Your task to perform on an android device: Open display settings Image 0: 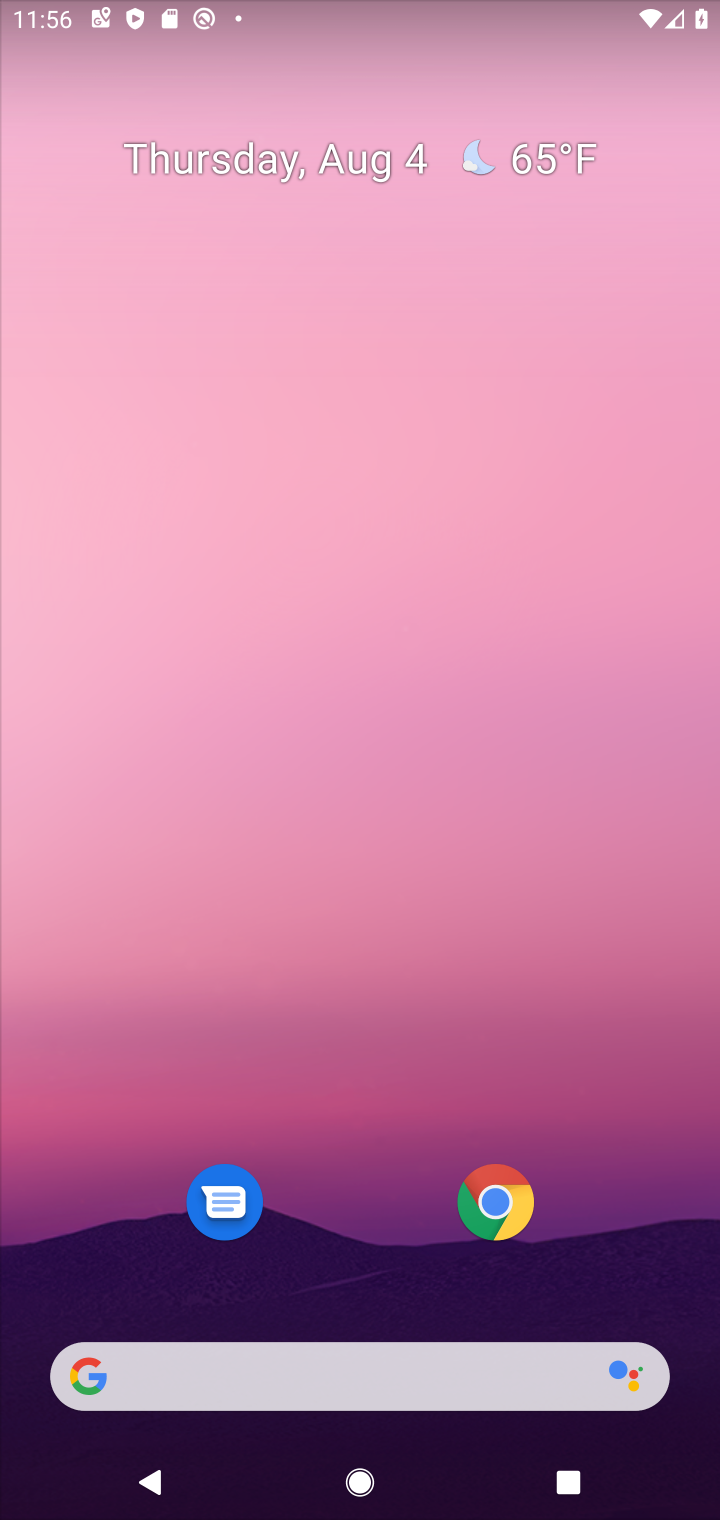
Step 0: drag from (297, 1279) to (459, 62)
Your task to perform on an android device: Open display settings Image 1: 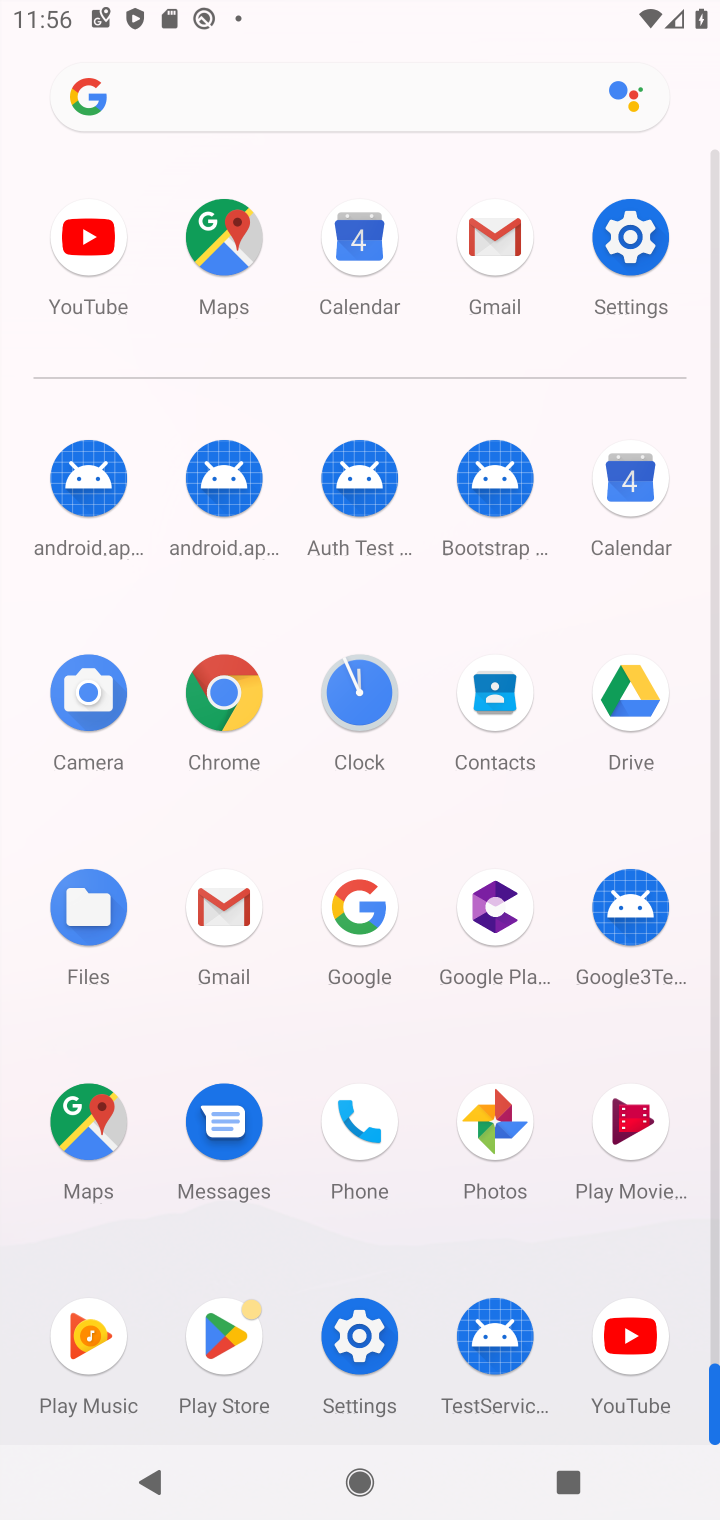
Step 1: click (642, 235)
Your task to perform on an android device: Open display settings Image 2: 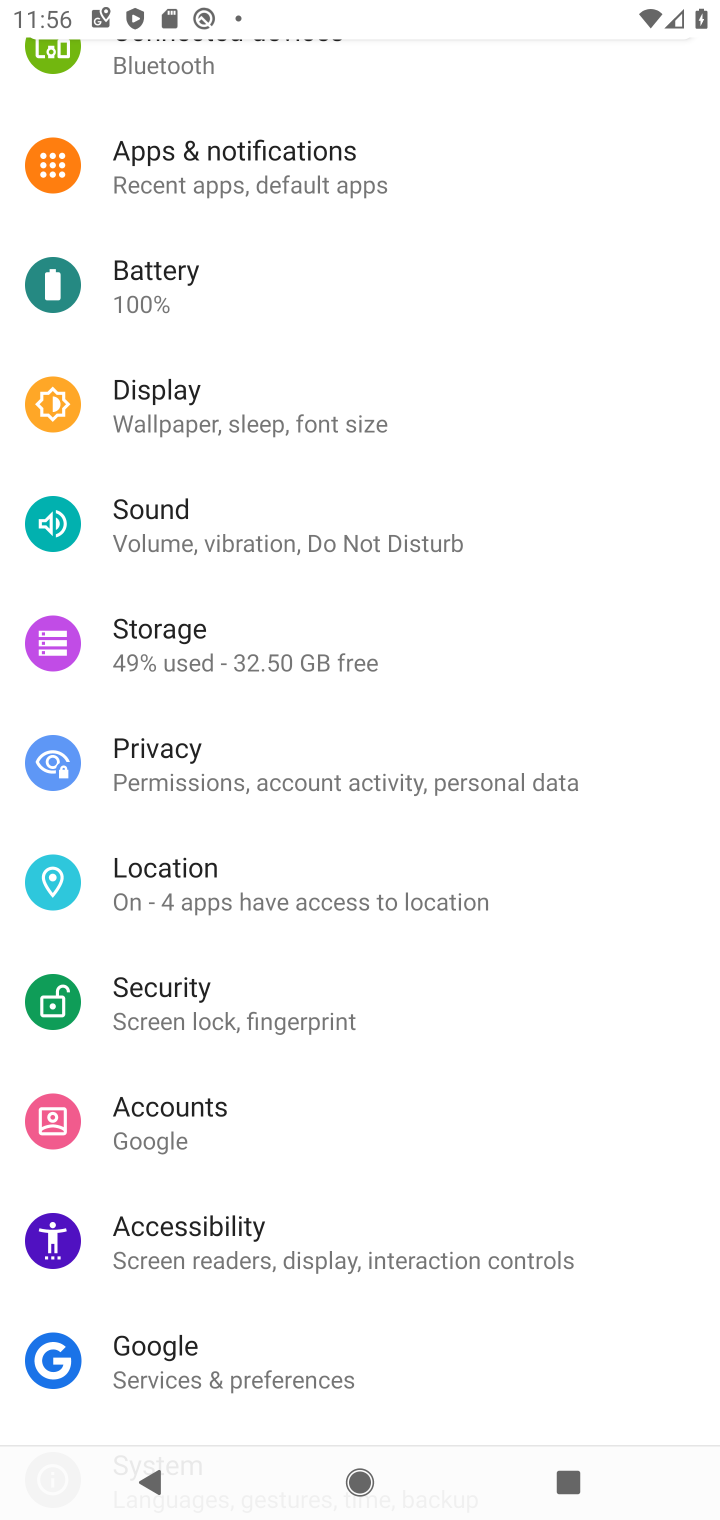
Step 2: click (280, 423)
Your task to perform on an android device: Open display settings Image 3: 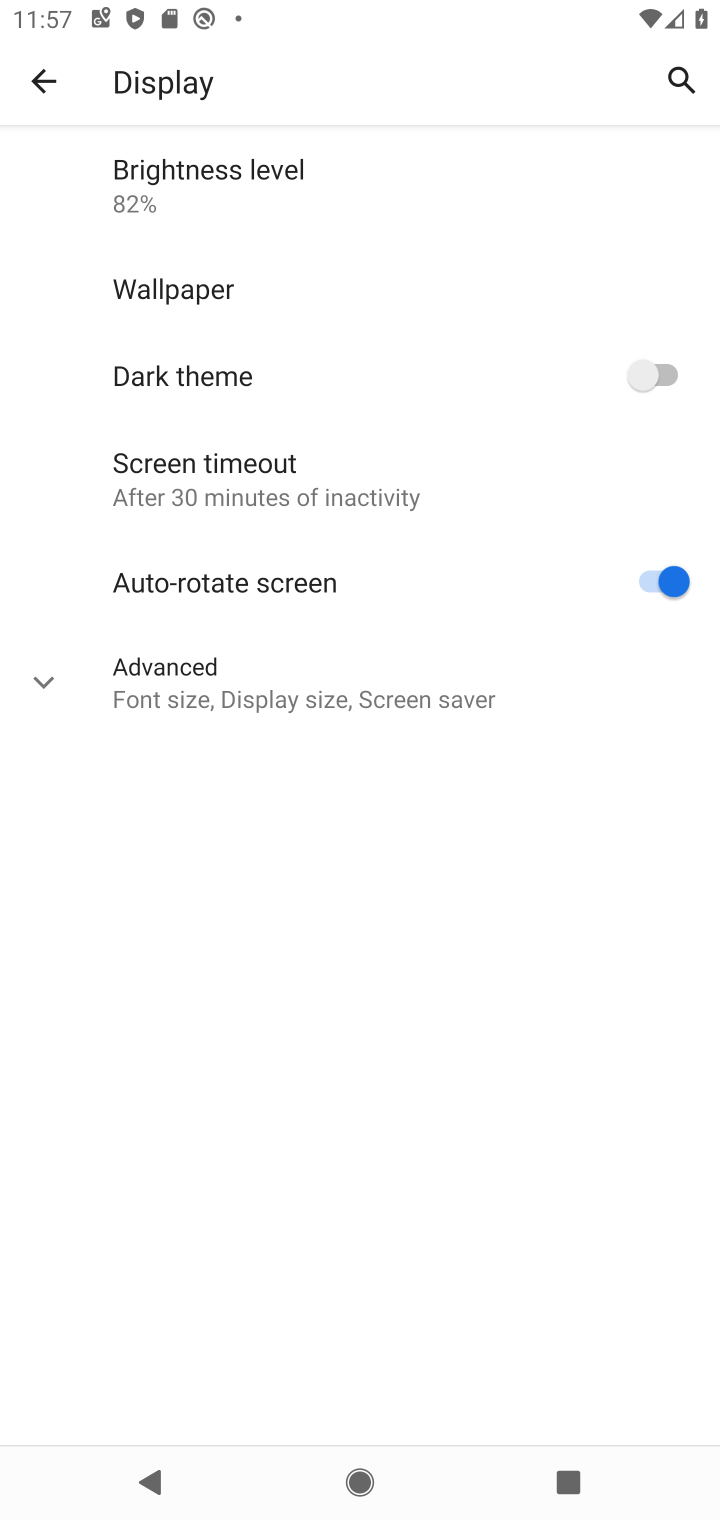
Step 3: task complete